Your task to perform on an android device: What's the weather going to be tomorrow? Image 0: 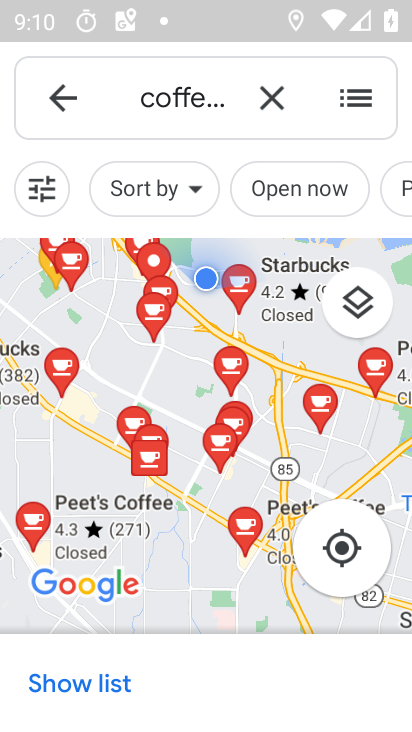
Step 0: press home button
Your task to perform on an android device: What's the weather going to be tomorrow? Image 1: 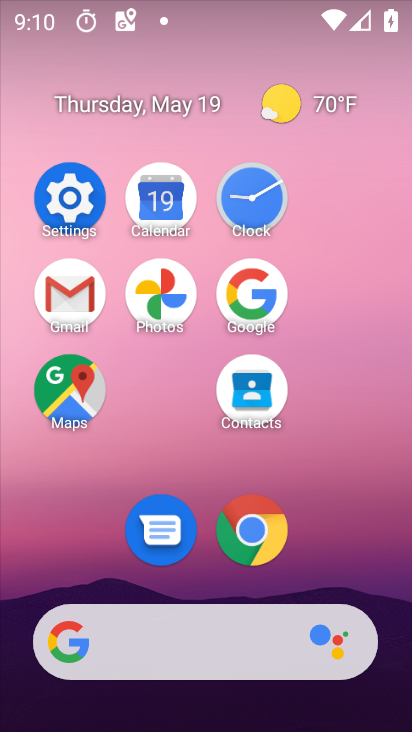
Step 1: click (268, 291)
Your task to perform on an android device: What's the weather going to be tomorrow? Image 2: 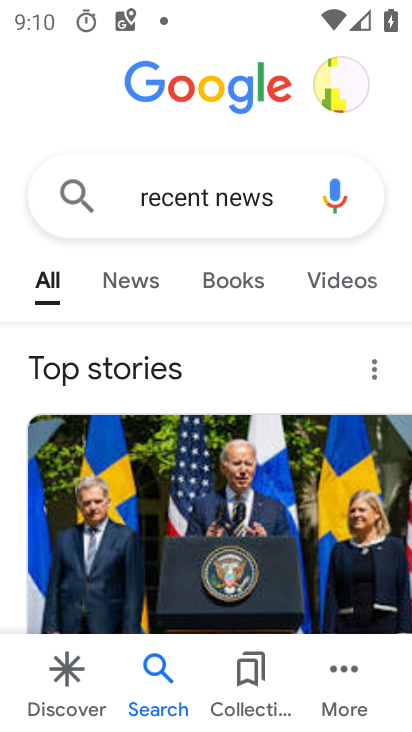
Step 2: click (286, 188)
Your task to perform on an android device: What's the weather going to be tomorrow? Image 3: 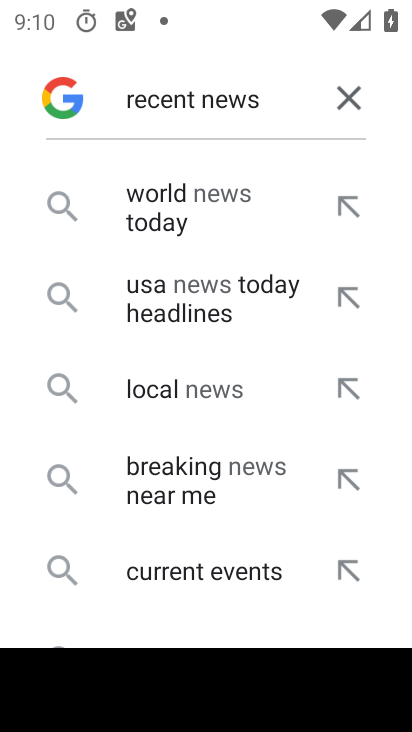
Step 3: click (265, 111)
Your task to perform on an android device: What's the weather going to be tomorrow? Image 4: 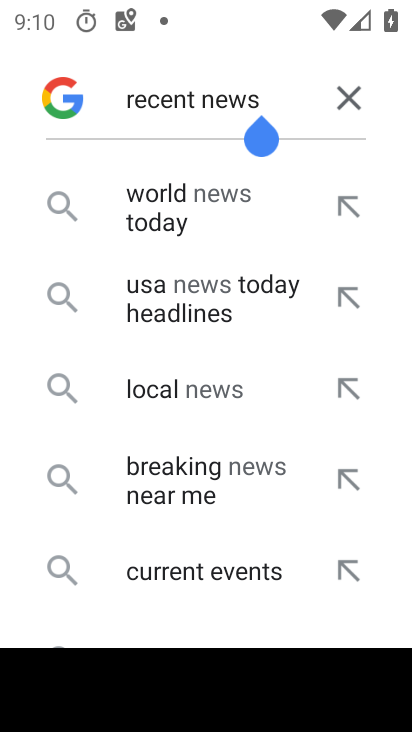
Step 4: click (351, 83)
Your task to perform on an android device: What's the weather going to be tomorrow? Image 5: 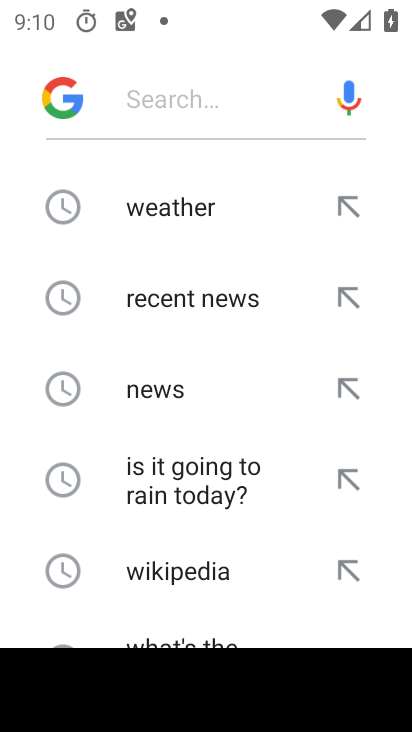
Step 5: click (200, 200)
Your task to perform on an android device: What's the weather going to be tomorrow? Image 6: 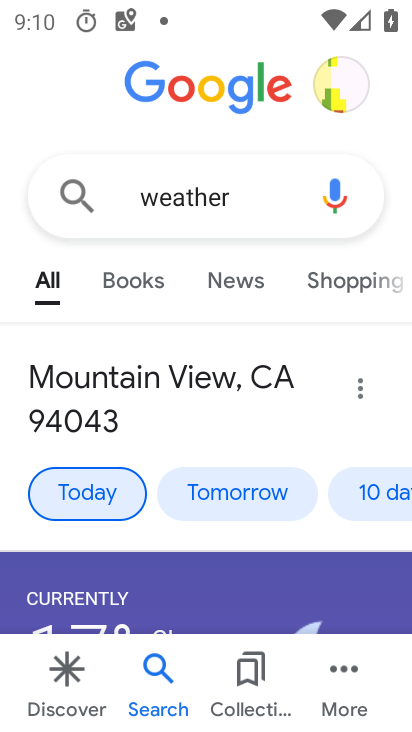
Step 6: click (198, 479)
Your task to perform on an android device: What's the weather going to be tomorrow? Image 7: 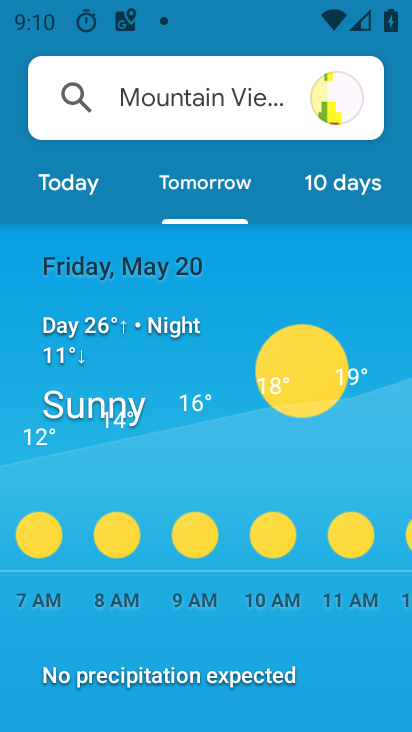
Step 7: task complete